Your task to perform on an android device: toggle translation in the chrome app Image 0: 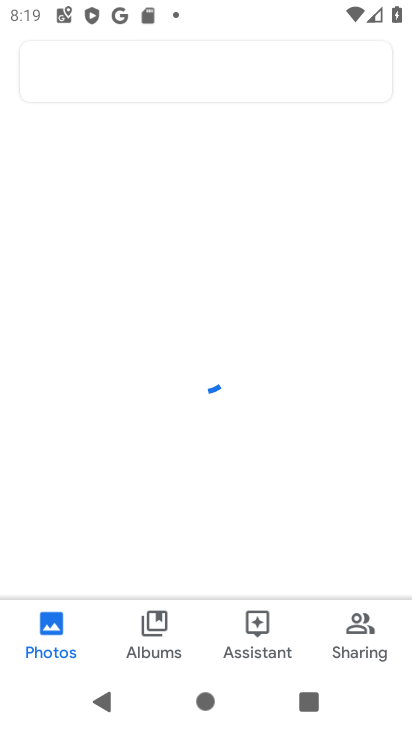
Step 0: press home button
Your task to perform on an android device: toggle translation in the chrome app Image 1: 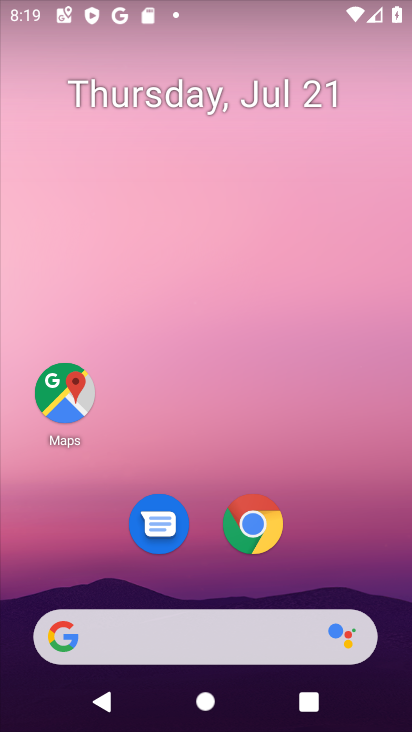
Step 1: click (258, 525)
Your task to perform on an android device: toggle translation in the chrome app Image 2: 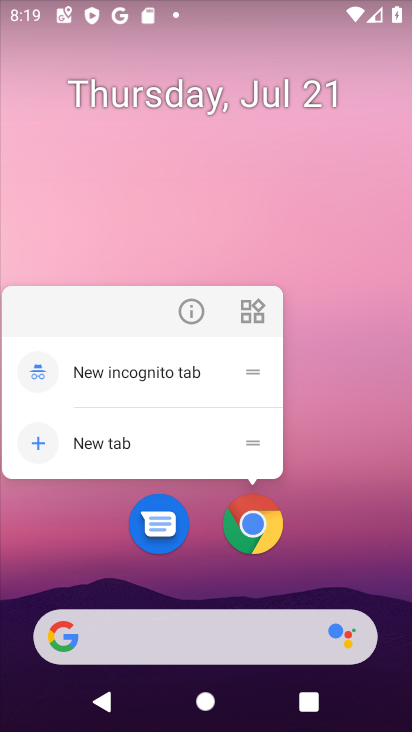
Step 2: click (251, 523)
Your task to perform on an android device: toggle translation in the chrome app Image 3: 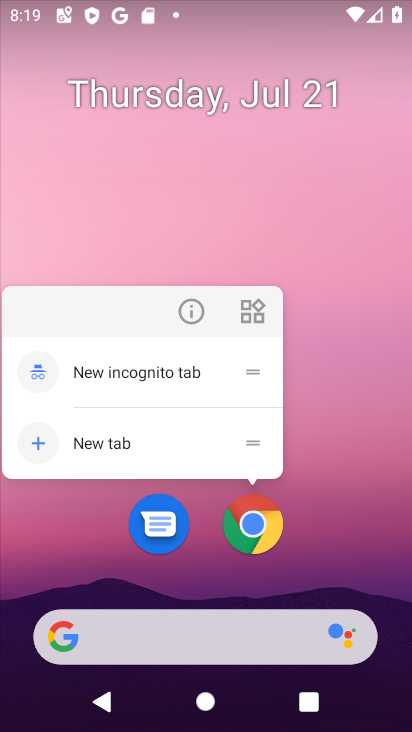
Step 3: click (252, 523)
Your task to perform on an android device: toggle translation in the chrome app Image 4: 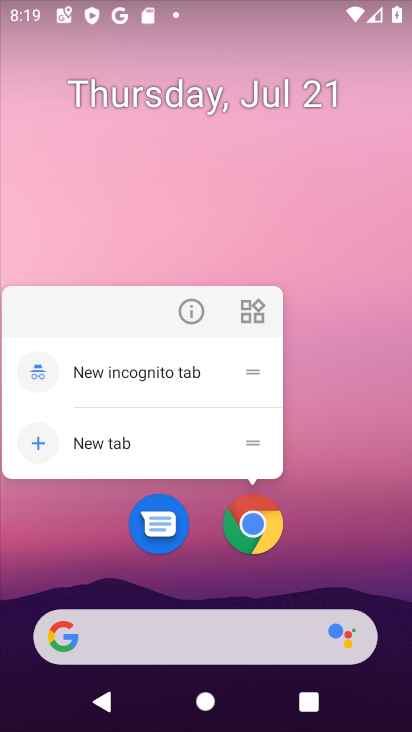
Step 4: click (252, 525)
Your task to perform on an android device: toggle translation in the chrome app Image 5: 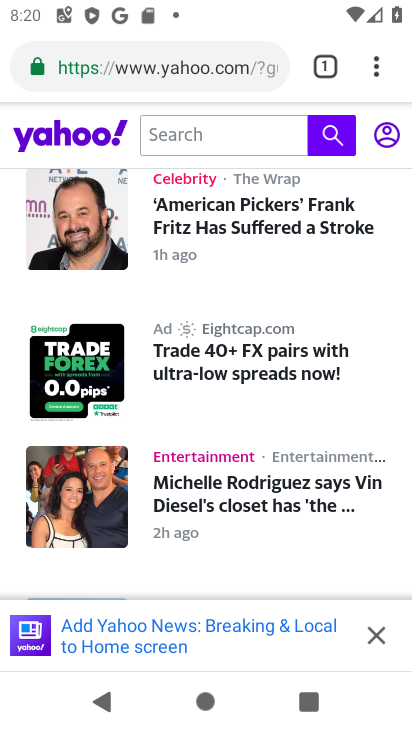
Step 5: drag from (376, 72) to (204, 531)
Your task to perform on an android device: toggle translation in the chrome app Image 6: 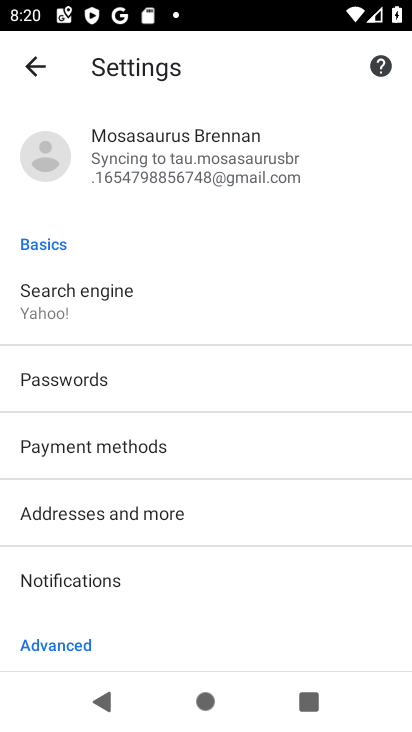
Step 6: drag from (165, 587) to (262, 95)
Your task to perform on an android device: toggle translation in the chrome app Image 7: 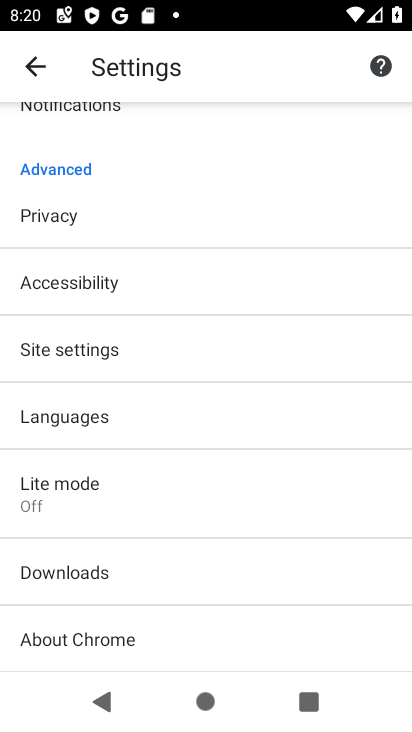
Step 7: click (89, 420)
Your task to perform on an android device: toggle translation in the chrome app Image 8: 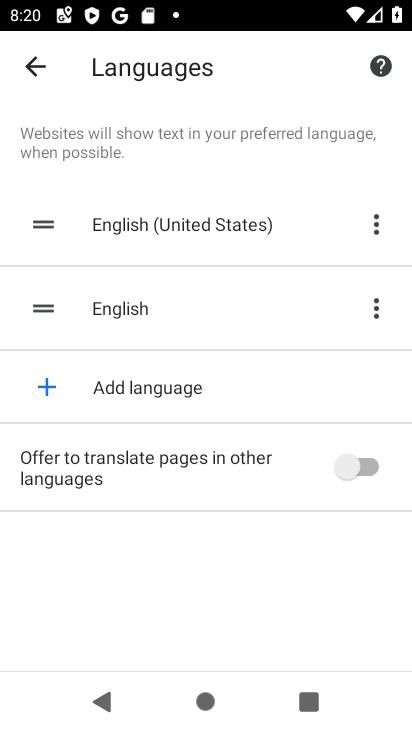
Step 8: click (367, 468)
Your task to perform on an android device: toggle translation in the chrome app Image 9: 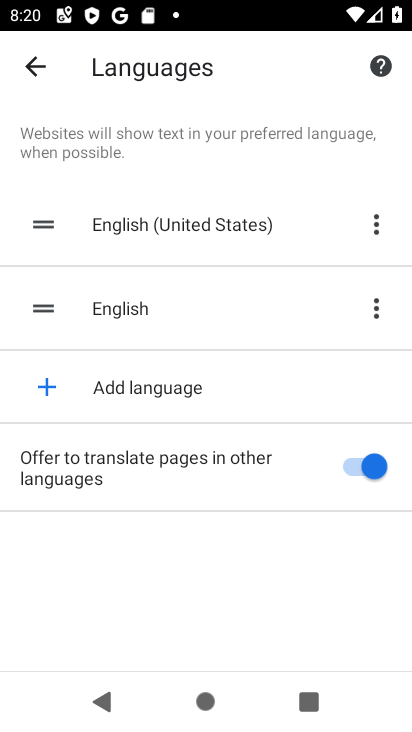
Step 9: task complete